Your task to perform on an android device: Open Reddit.com Image 0: 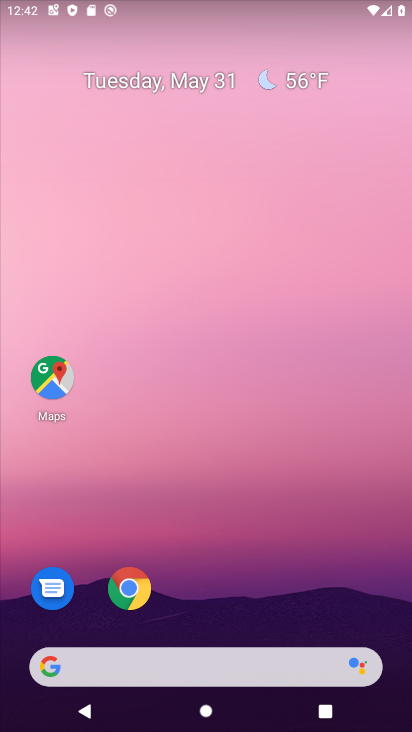
Step 0: click (130, 589)
Your task to perform on an android device: Open Reddit.com Image 1: 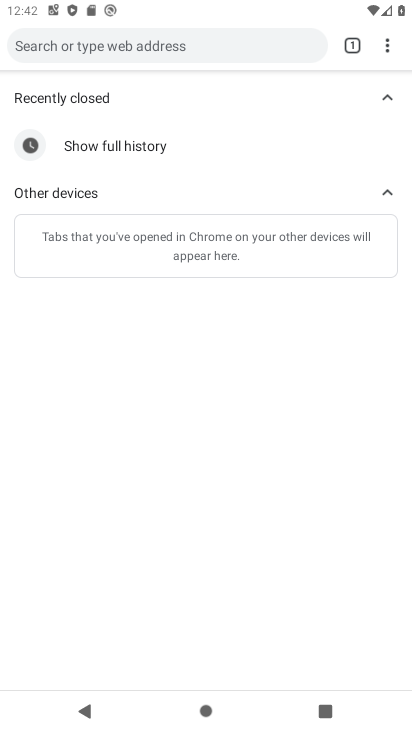
Step 1: click (117, 43)
Your task to perform on an android device: Open Reddit.com Image 2: 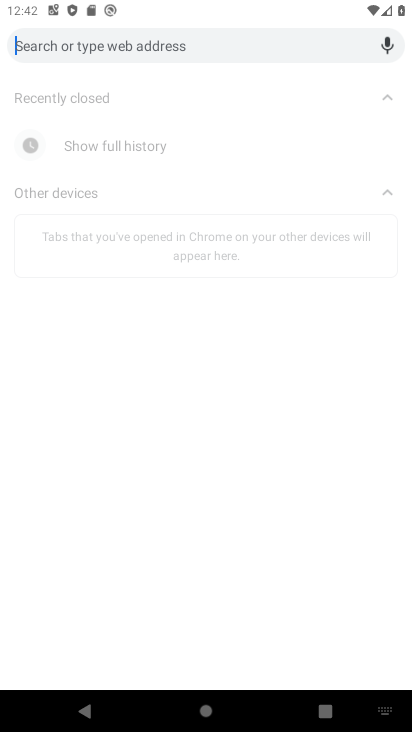
Step 2: type "www.reddit.com"
Your task to perform on an android device: Open Reddit.com Image 3: 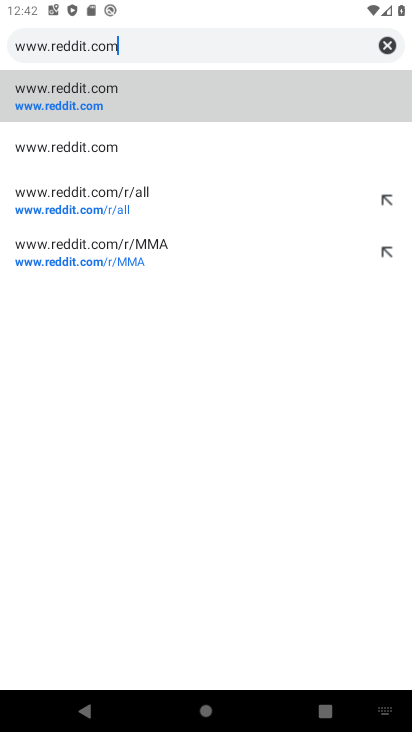
Step 3: click (43, 106)
Your task to perform on an android device: Open Reddit.com Image 4: 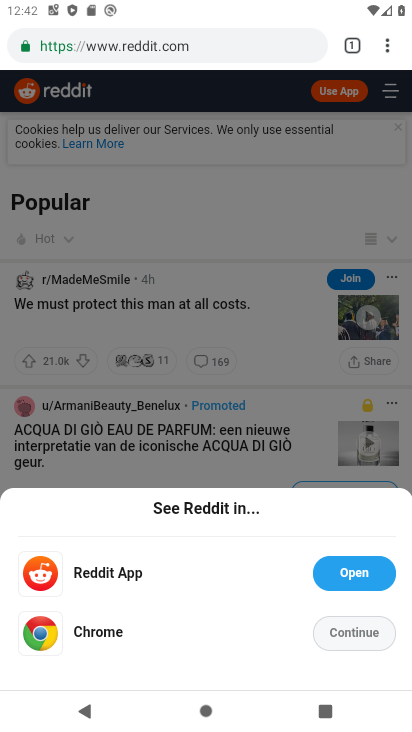
Step 4: task complete